Your task to perform on an android device: make emails show in primary in the gmail app Image 0: 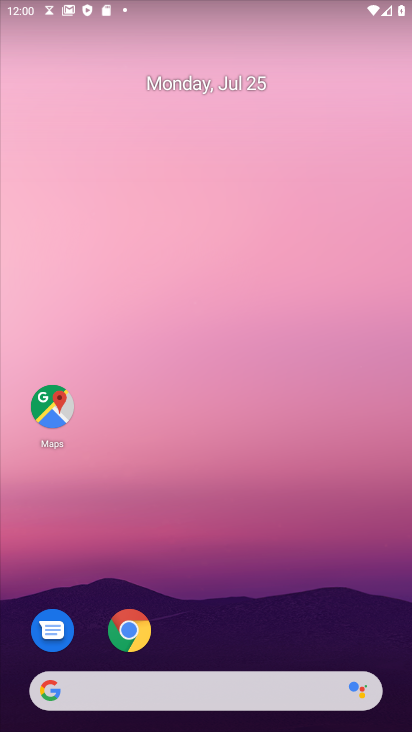
Step 0: press home button
Your task to perform on an android device: make emails show in primary in the gmail app Image 1: 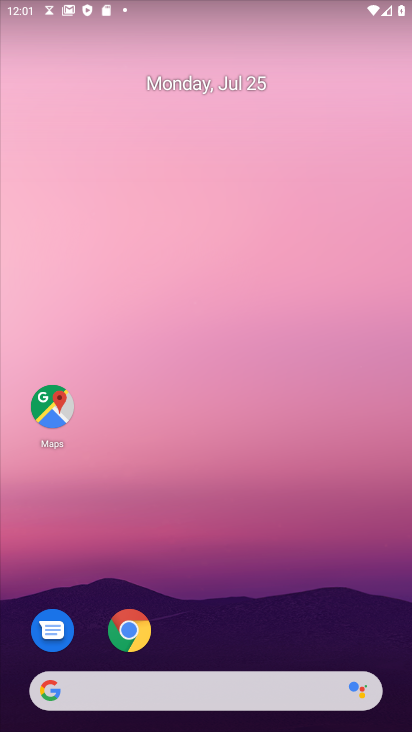
Step 1: press home button
Your task to perform on an android device: make emails show in primary in the gmail app Image 2: 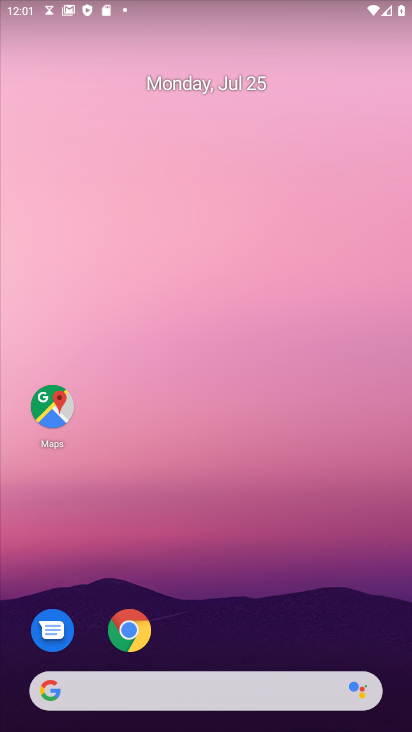
Step 2: drag from (277, 595) to (320, 106)
Your task to perform on an android device: make emails show in primary in the gmail app Image 3: 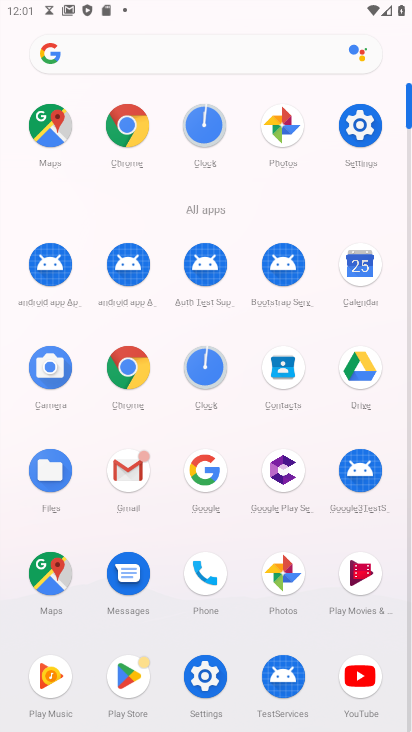
Step 3: click (131, 484)
Your task to perform on an android device: make emails show in primary in the gmail app Image 4: 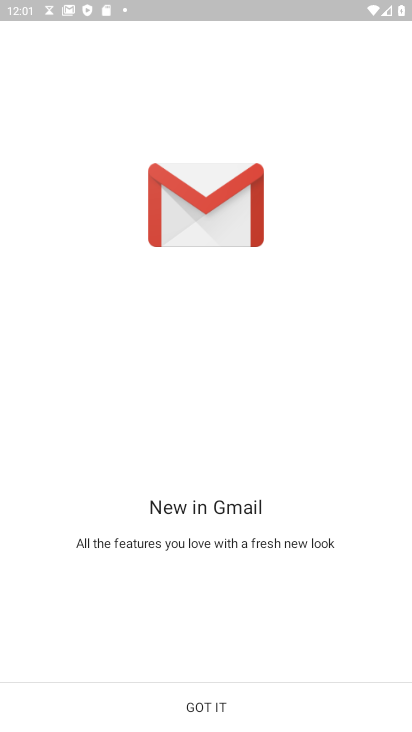
Step 4: click (202, 715)
Your task to perform on an android device: make emails show in primary in the gmail app Image 5: 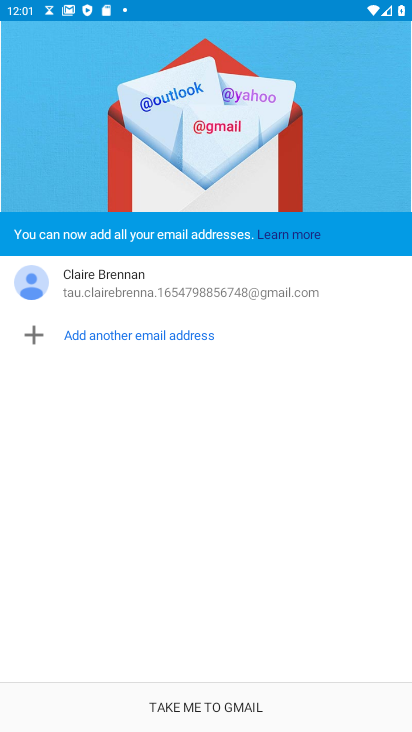
Step 5: click (223, 700)
Your task to perform on an android device: make emails show in primary in the gmail app Image 6: 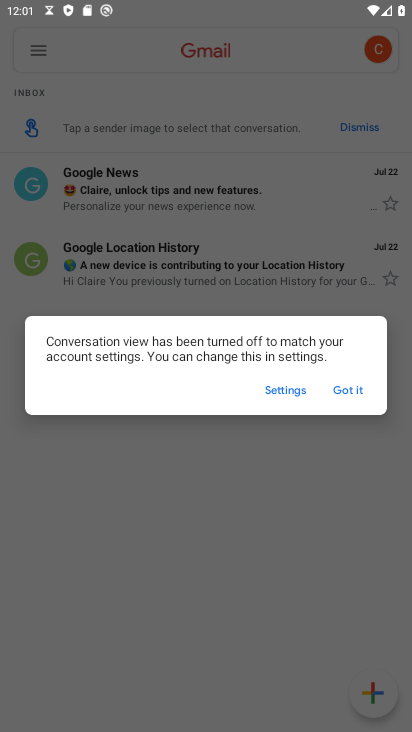
Step 6: click (349, 393)
Your task to perform on an android device: make emails show in primary in the gmail app Image 7: 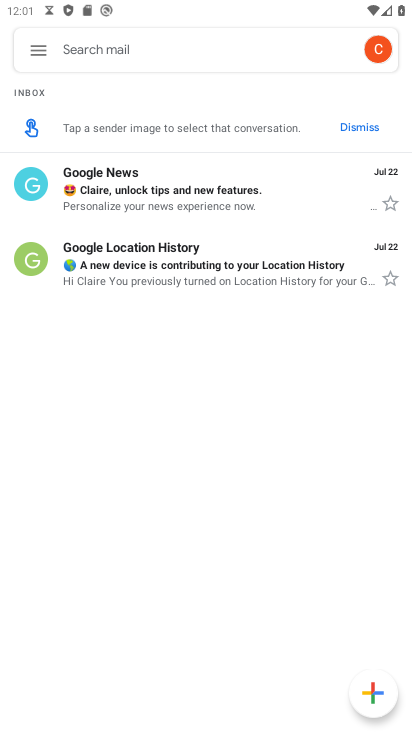
Step 7: click (37, 50)
Your task to perform on an android device: make emails show in primary in the gmail app Image 8: 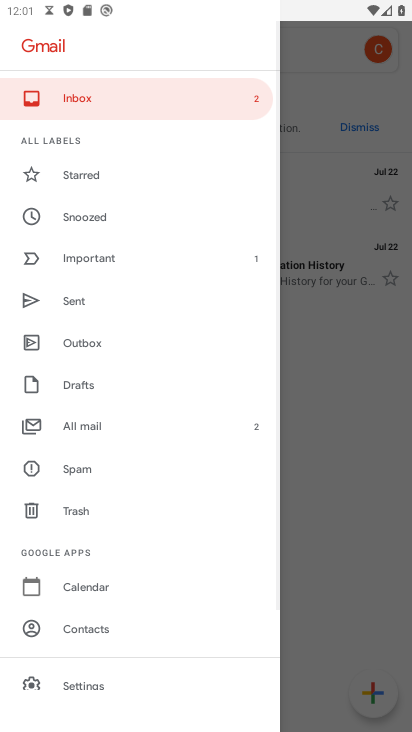
Step 8: click (95, 687)
Your task to perform on an android device: make emails show in primary in the gmail app Image 9: 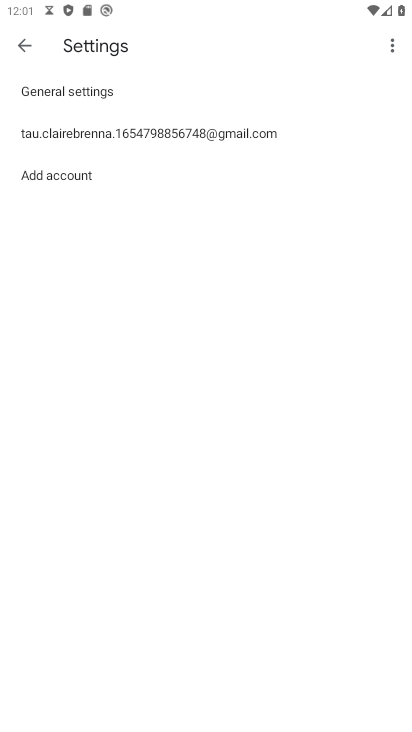
Step 9: click (57, 136)
Your task to perform on an android device: make emails show in primary in the gmail app Image 10: 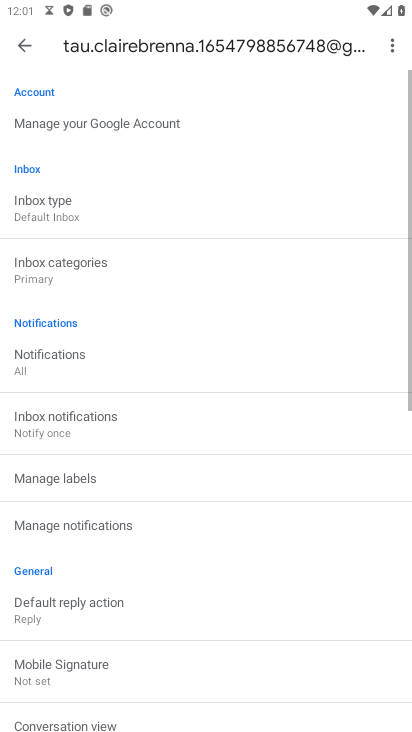
Step 10: click (74, 209)
Your task to perform on an android device: make emails show in primary in the gmail app Image 11: 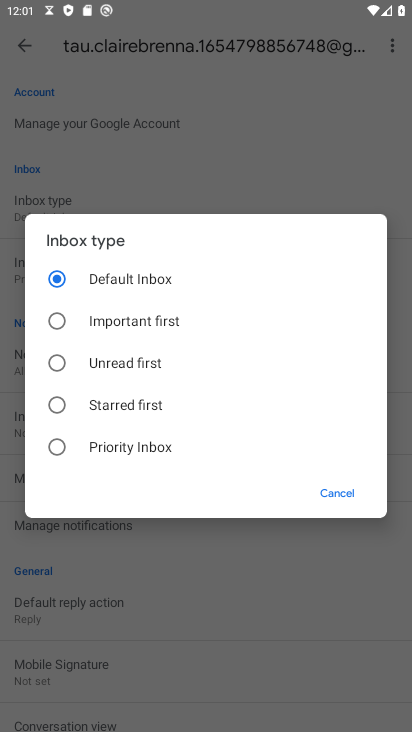
Step 11: click (167, 198)
Your task to perform on an android device: make emails show in primary in the gmail app Image 12: 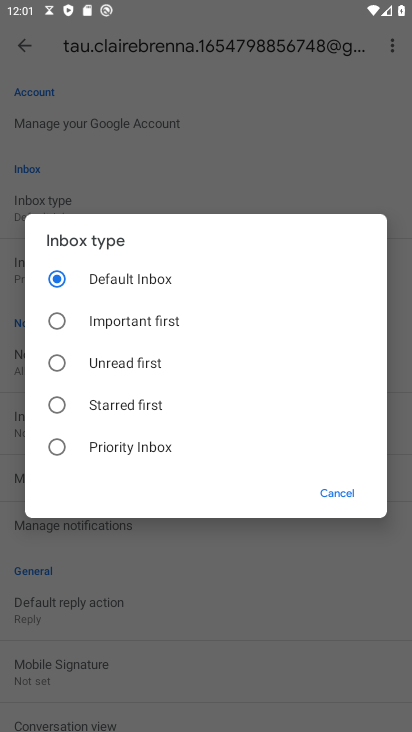
Step 12: click (21, 277)
Your task to perform on an android device: make emails show in primary in the gmail app Image 13: 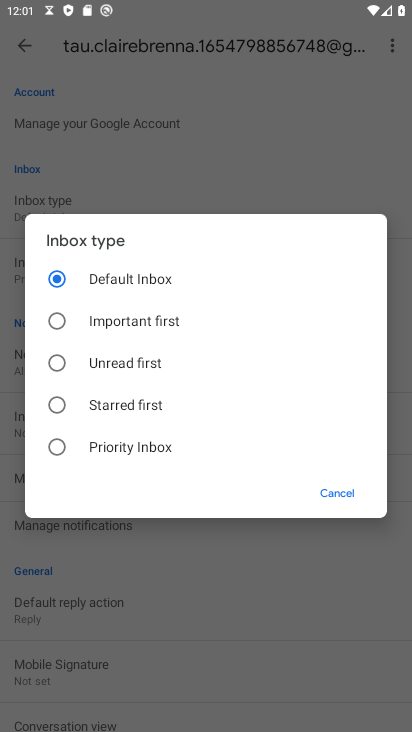
Step 13: click (336, 547)
Your task to perform on an android device: make emails show in primary in the gmail app Image 14: 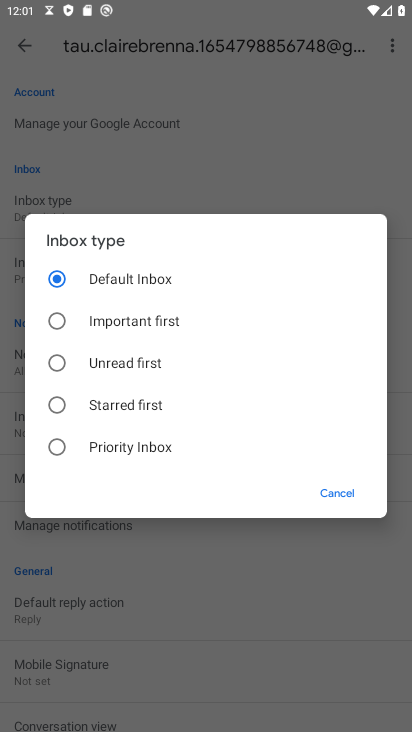
Step 14: click (333, 490)
Your task to perform on an android device: make emails show in primary in the gmail app Image 15: 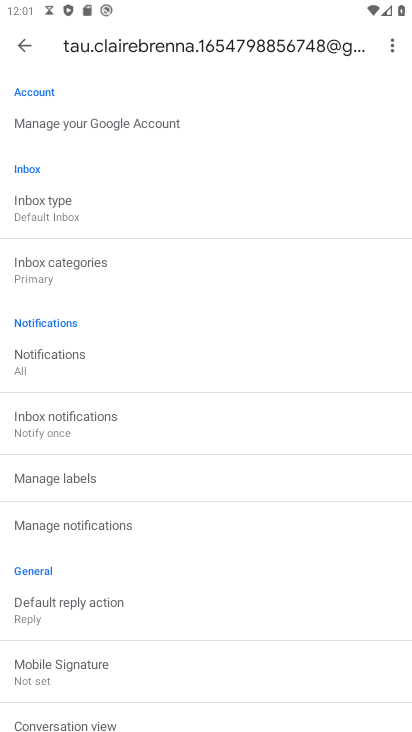
Step 15: click (50, 269)
Your task to perform on an android device: make emails show in primary in the gmail app Image 16: 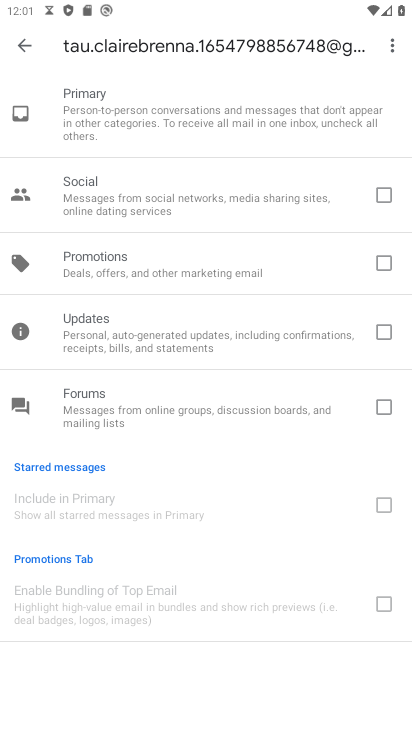
Step 16: task complete